Your task to perform on an android device: open the mobile data screen to see how much data has been used Image 0: 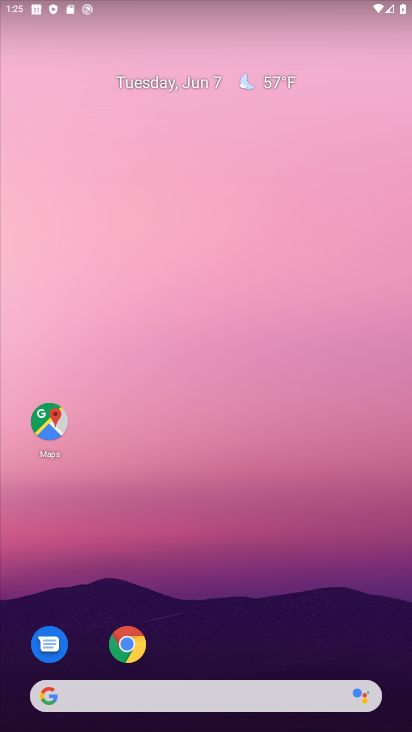
Step 0: drag from (242, 727) to (182, 197)
Your task to perform on an android device: open the mobile data screen to see how much data has been used Image 1: 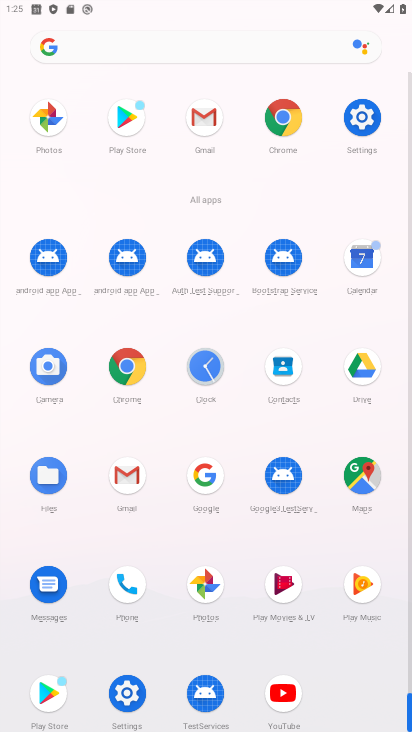
Step 1: click (362, 112)
Your task to perform on an android device: open the mobile data screen to see how much data has been used Image 2: 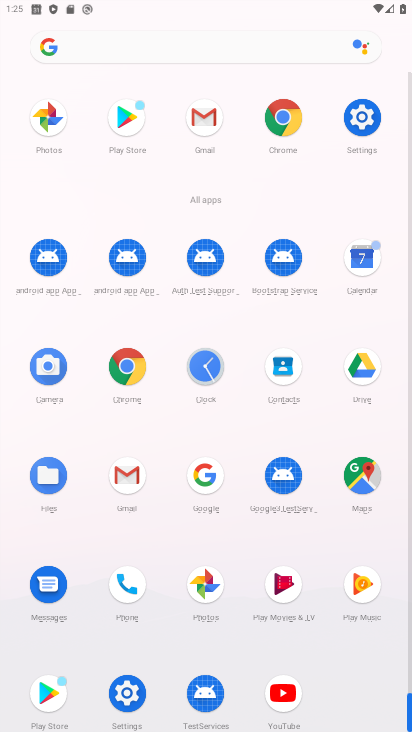
Step 2: click (362, 112)
Your task to perform on an android device: open the mobile data screen to see how much data has been used Image 3: 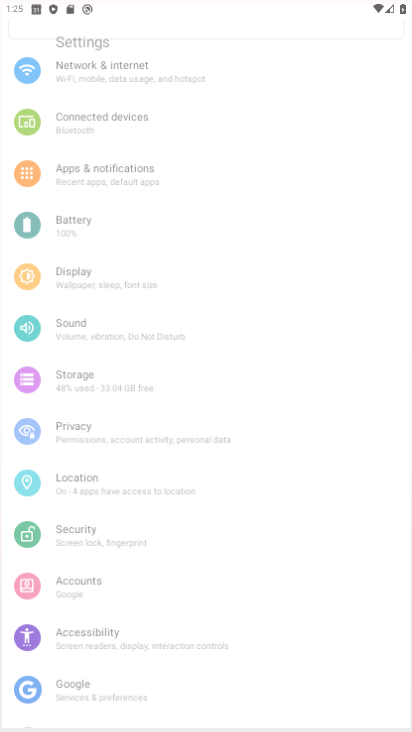
Step 3: click (360, 114)
Your task to perform on an android device: open the mobile data screen to see how much data has been used Image 4: 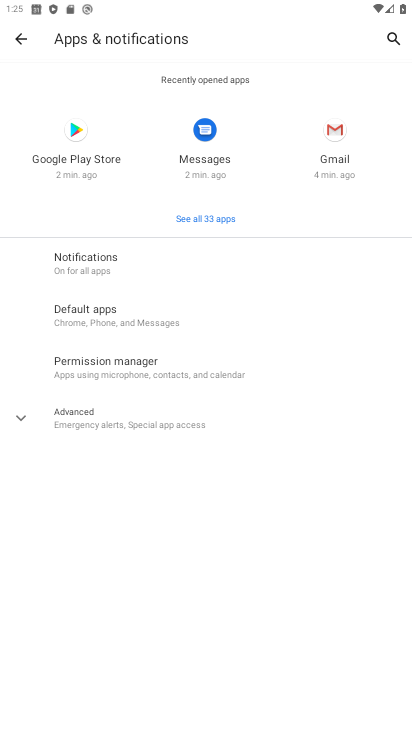
Step 4: click (12, 39)
Your task to perform on an android device: open the mobile data screen to see how much data has been used Image 5: 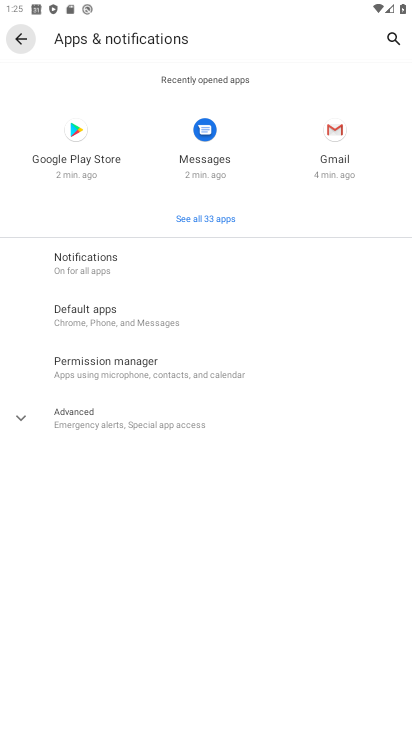
Step 5: click (12, 39)
Your task to perform on an android device: open the mobile data screen to see how much data has been used Image 6: 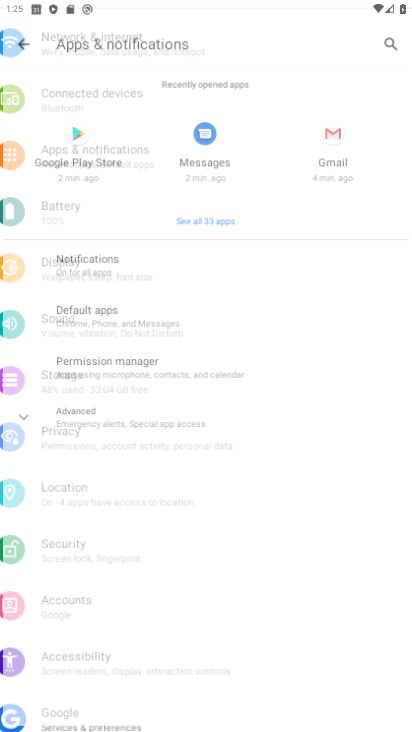
Step 6: click (12, 39)
Your task to perform on an android device: open the mobile data screen to see how much data has been used Image 7: 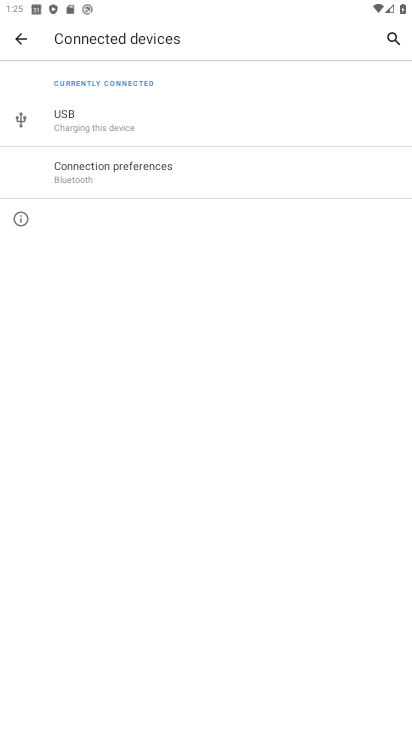
Step 7: click (22, 32)
Your task to perform on an android device: open the mobile data screen to see how much data has been used Image 8: 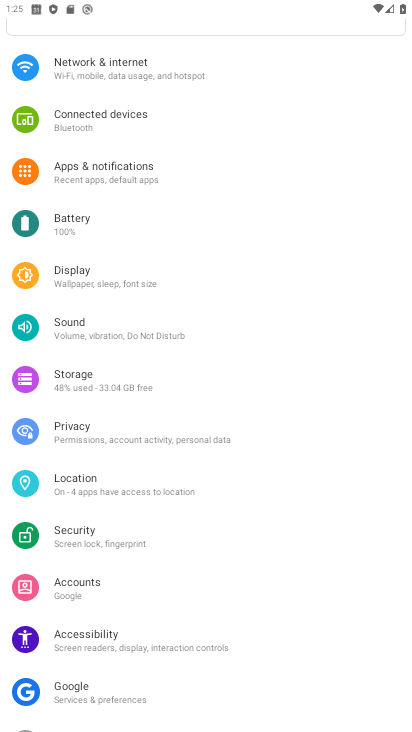
Step 8: click (82, 70)
Your task to perform on an android device: open the mobile data screen to see how much data has been used Image 9: 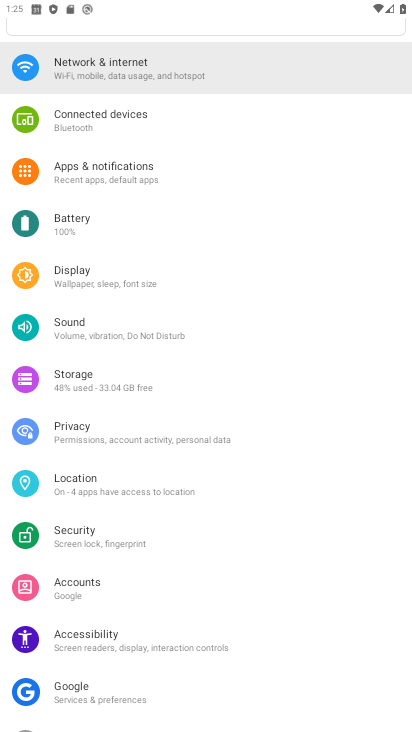
Step 9: click (82, 70)
Your task to perform on an android device: open the mobile data screen to see how much data has been used Image 10: 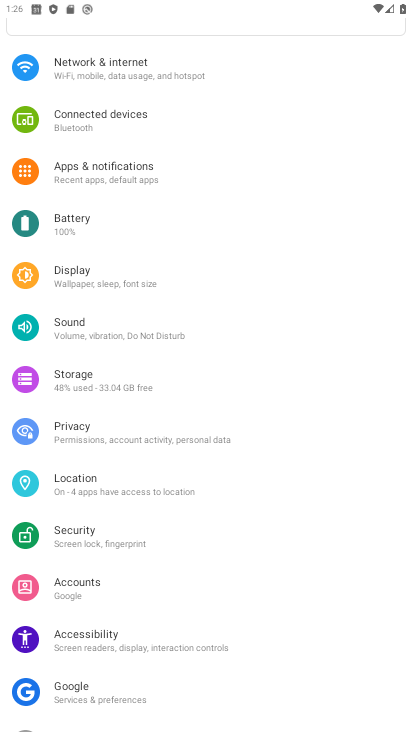
Step 10: click (82, 70)
Your task to perform on an android device: open the mobile data screen to see how much data has been used Image 11: 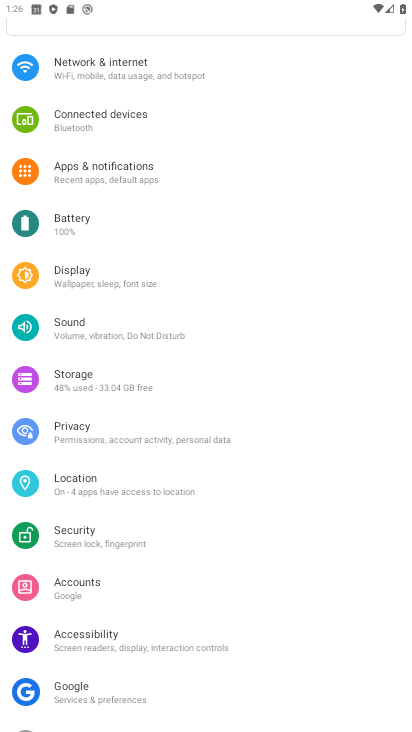
Step 11: click (82, 70)
Your task to perform on an android device: open the mobile data screen to see how much data has been used Image 12: 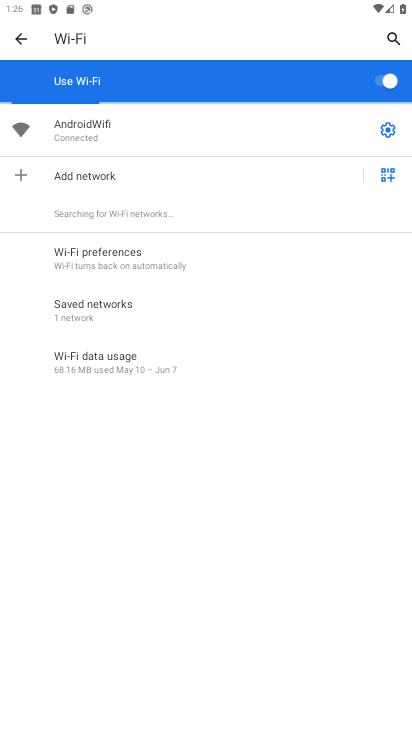
Step 12: task complete